Your task to perform on an android device: see creations saved in the google photos Image 0: 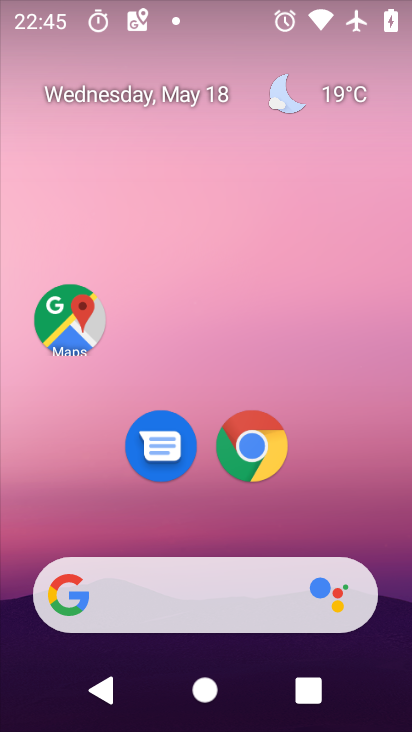
Step 0: press home button
Your task to perform on an android device: see creations saved in the google photos Image 1: 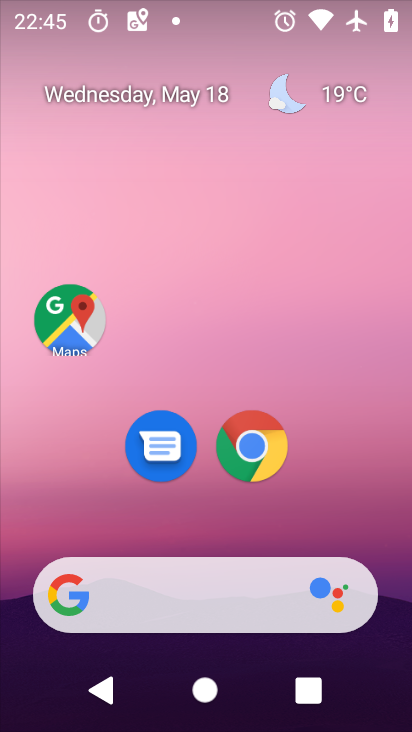
Step 1: drag from (185, 602) to (322, 209)
Your task to perform on an android device: see creations saved in the google photos Image 2: 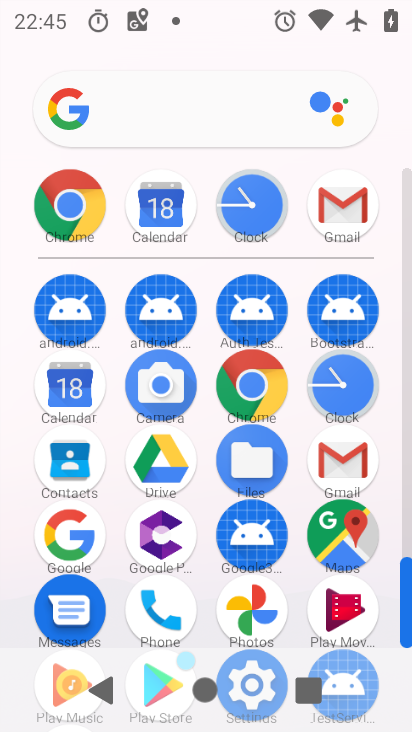
Step 2: click (246, 611)
Your task to perform on an android device: see creations saved in the google photos Image 3: 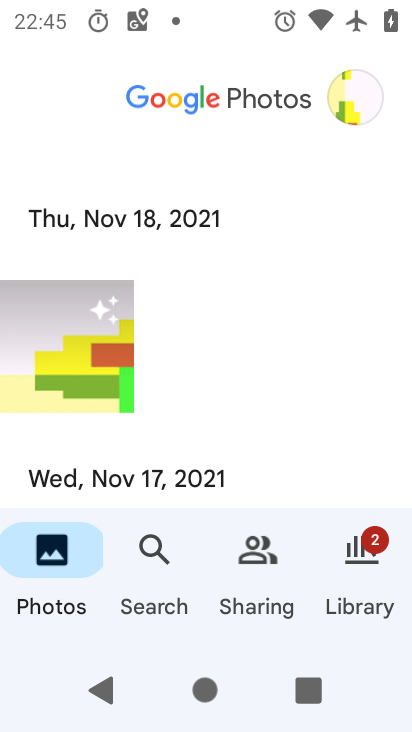
Step 3: click (159, 595)
Your task to perform on an android device: see creations saved in the google photos Image 4: 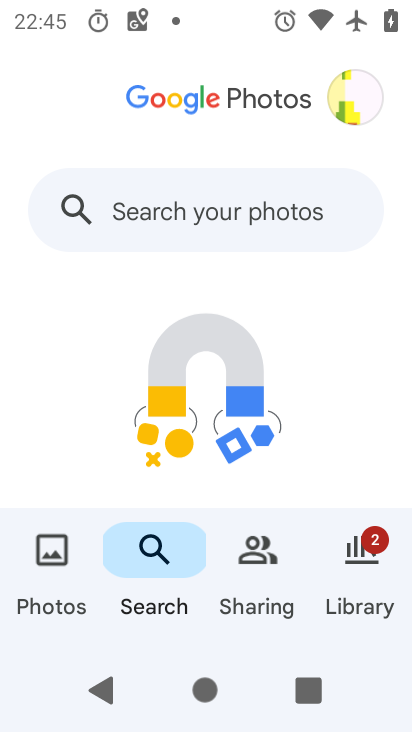
Step 4: drag from (258, 310) to (343, 39)
Your task to perform on an android device: see creations saved in the google photos Image 5: 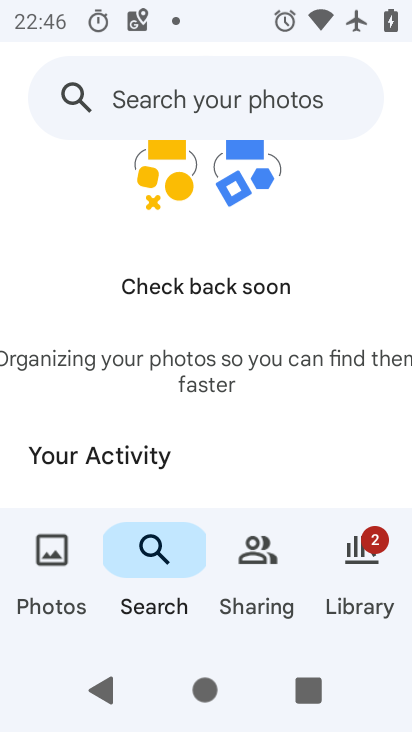
Step 5: drag from (192, 481) to (301, 52)
Your task to perform on an android device: see creations saved in the google photos Image 6: 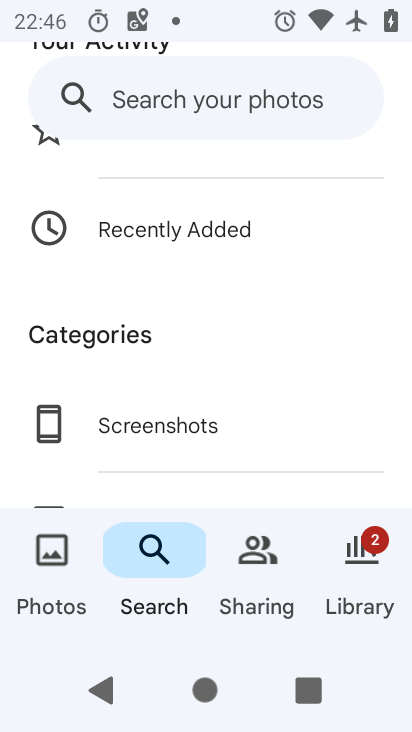
Step 6: drag from (218, 406) to (356, 1)
Your task to perform on an android device: see creations saved in the google photos Image 7: 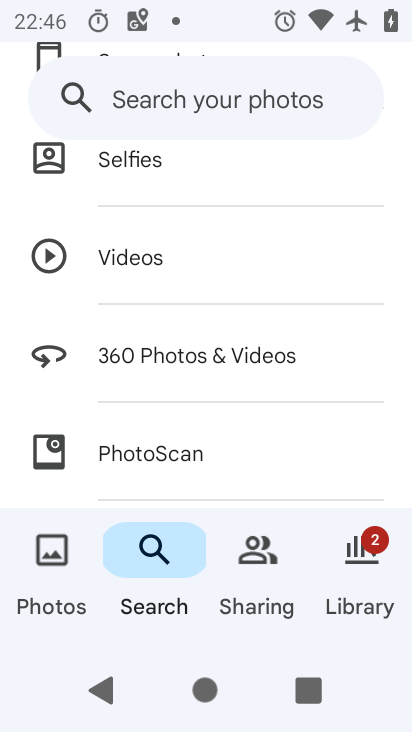
Step 7: drag from (222, 469) to (298, 3)
Your task to perform on an android device: see creations saved in the google photos Image 8: 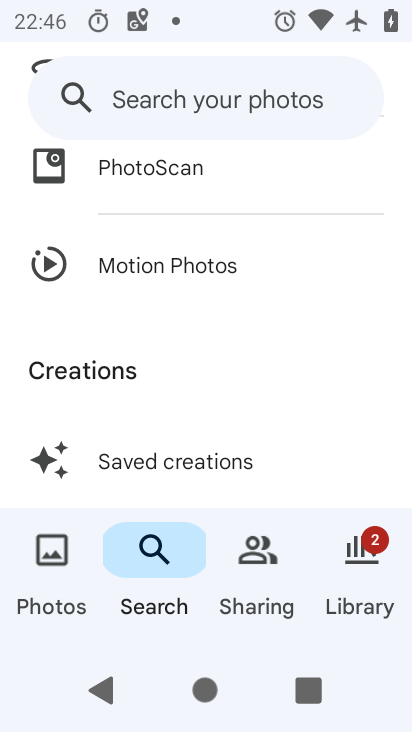
Step 8: click (175, 452)
Your task to perform on an android device: see creations saved in the google photos Image 9: 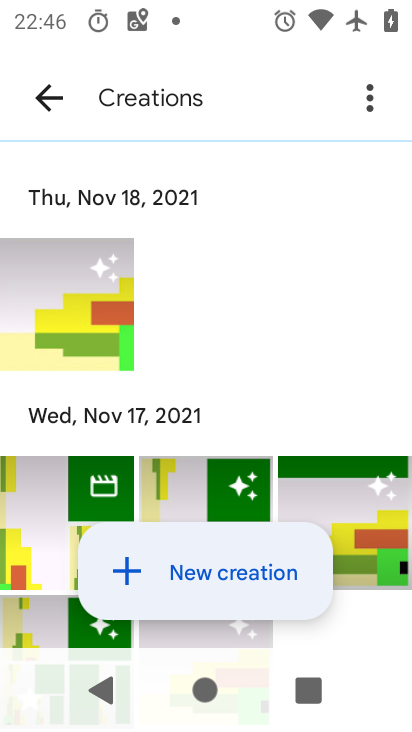
Step 9: task complete